Your task to perform on an android device: Go to Android settings Image 0: 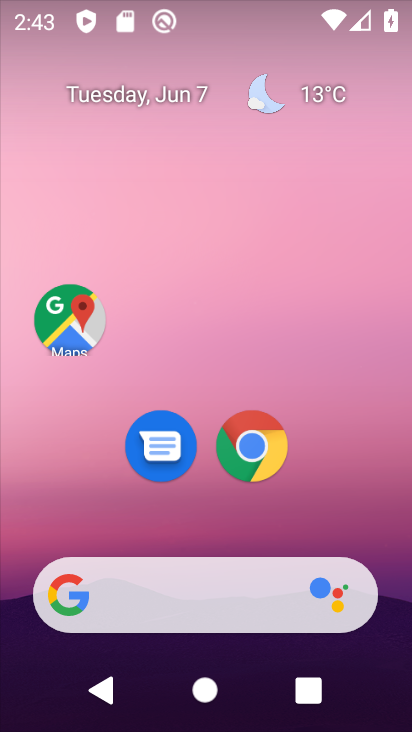
Step 0: drag from (205, 516) to (252, 16)
Your task to perform on an android device: Go to Android settings Image 1: 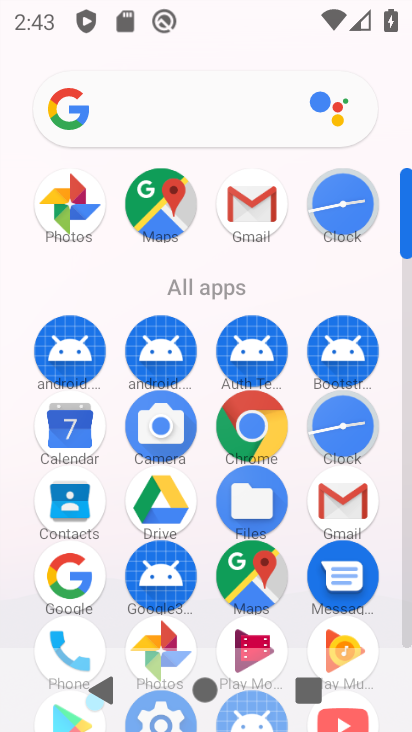
Step 1: drag from (199, 598) to (255, 172)
Your task to perform on an android device: Go to Android settings Image 2: 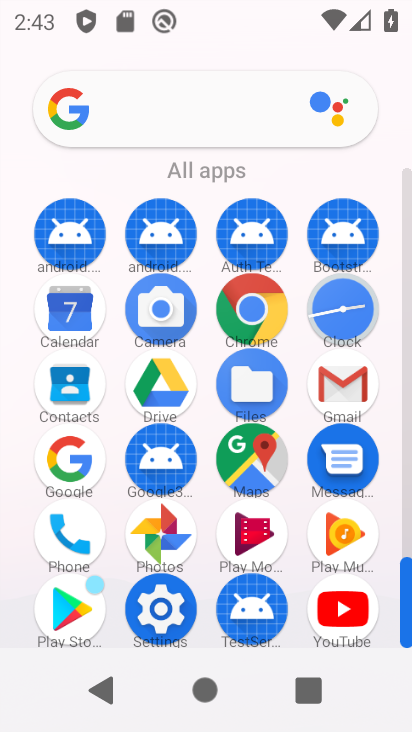
Step 2: click (162, 598)
Your task to perform on an android device: Go to Android settings Image 3: 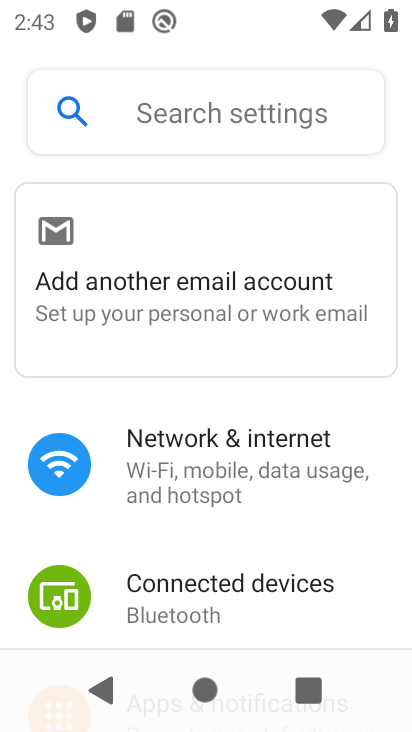
Step 3: task complete